Your task to perform on an android device: Search for dell xps on bestbuy.com, select the first entry, and add it to the cart. Image 0: 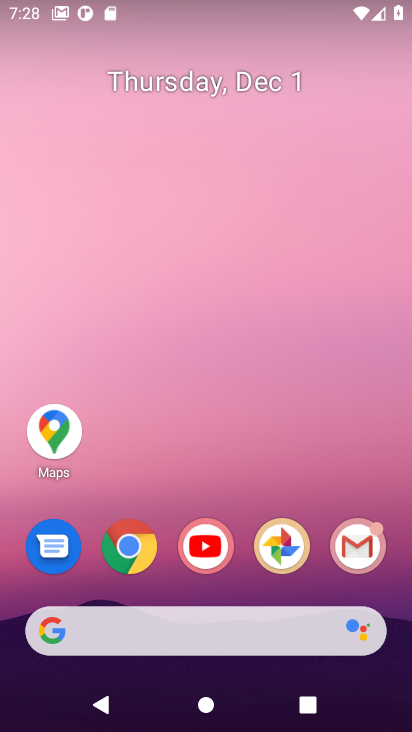
Step 0: click (124, 557)
Your task to perform on an android device: Search for dell xps on bestbuy.com, select the first entry, and add it to the cart. Image 1: 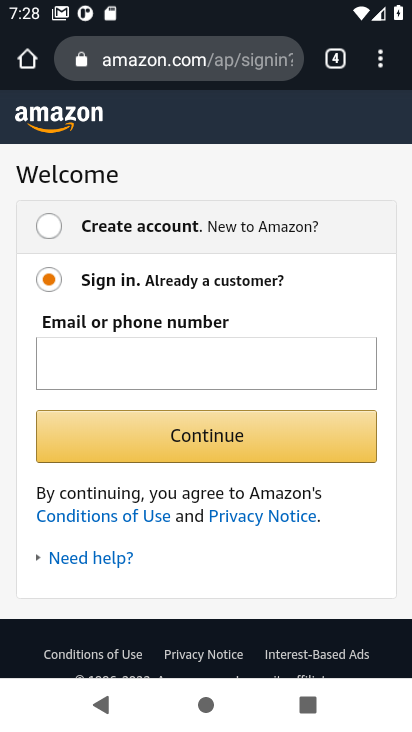
Step 1: click (195, 59)
Your task to perform on an android device: Search for dell xps on bestbuy.com, select the first entry, and add it to the cart. Image 2: 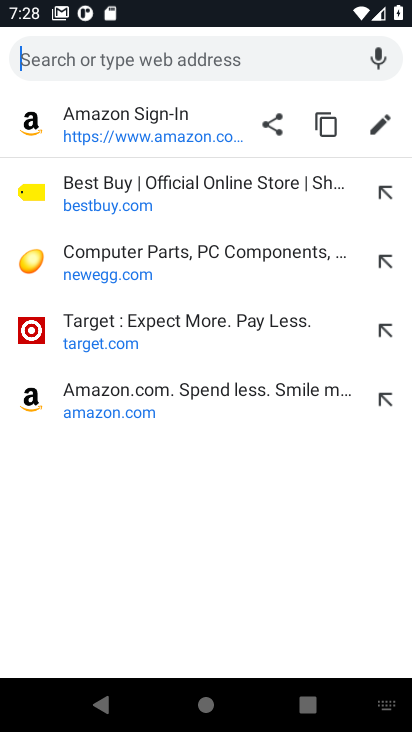
Step 2: click (104, 189)
Your task to perform on an android device: Search for dell xps on bestbuy.com, select the first entry, and add it to the cart. Image 3: 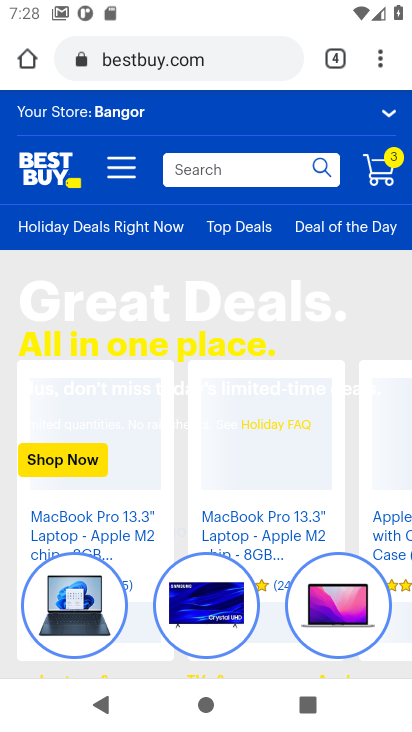
Step 3: click (192, 178)
Your task to perform on an android device: Search for dell xps on bestbuy.com, select the first entry, and add it to the cart. Image 4: 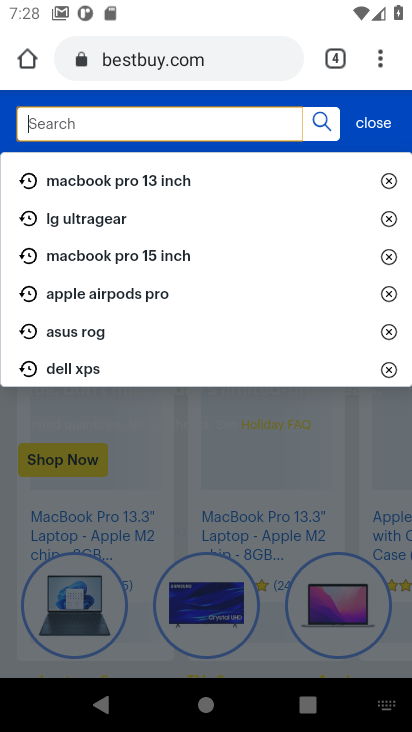
Step 4: type "dell xps"
Your task to perform on an android device: Search for dell xps on bestbuy.com, select the first entry, and add it to the cart. Image 5: 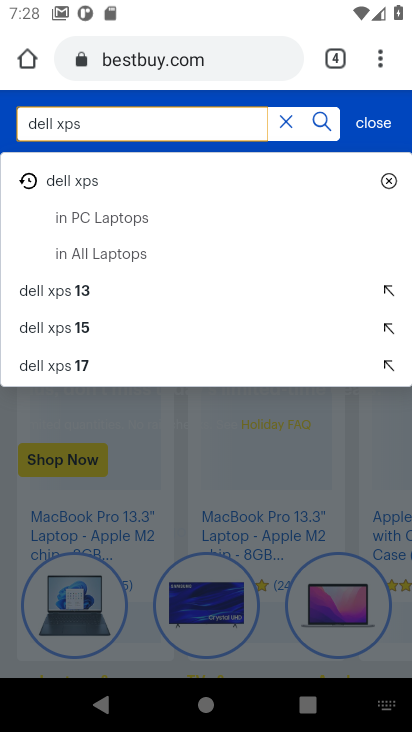
Step 5: click (66, 183)
Your task to perform on an android device: Search for dell xps on bestbuy.com, select the first entry, and add it to the cart. Image 6: 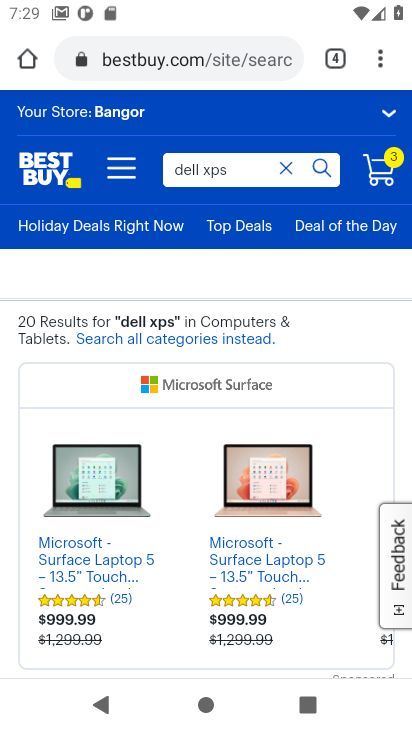
Step 6: drag from (180, 598) to (170, 271)
Your task to perform on an android device: Search for dell xps on bestbuy.com, select the first entry, and add it to the cart. Image 7: 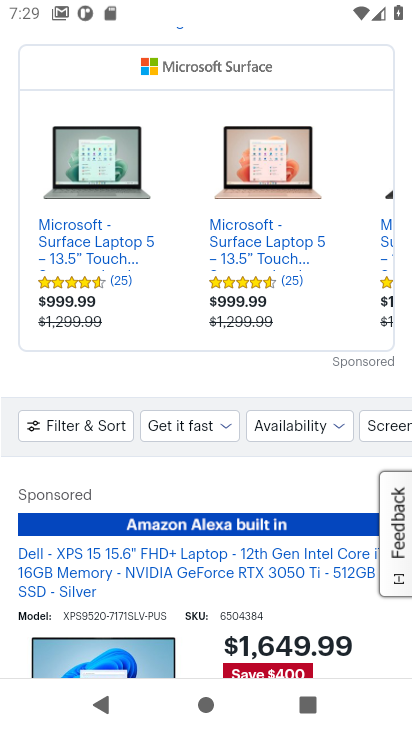
Step 7: drag from (172, 453) to (143, 211)
Your task to perform on an android device: Search for dell xps on bestbuy.com, select the first entry, and add it to the cart. Image 8: 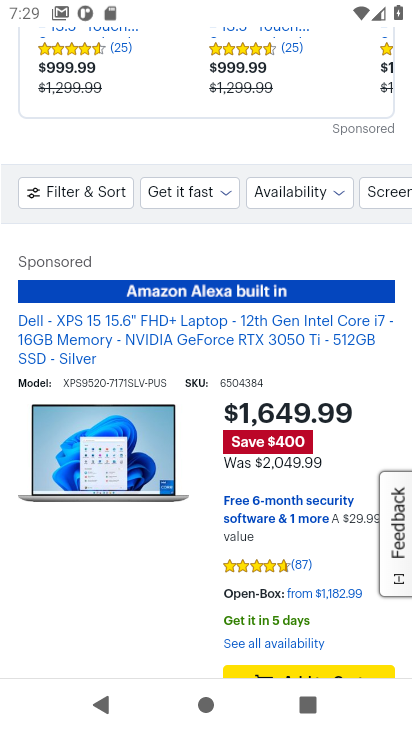
Step 8: drag from (238, 572) to (236, 358)
Your task to perform on an android device: Search for dell xps on bestbuy.com, select the first entry, and add it to the cart. Image 9: 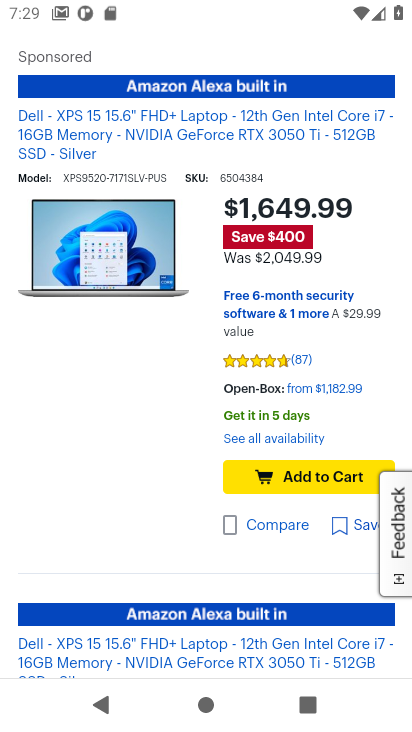
Step 9: click (273, 474)
Your task to perform on an android device: Search for dell xps on bestbuy.com, select the first entry, and add it to the cart. Image 10: 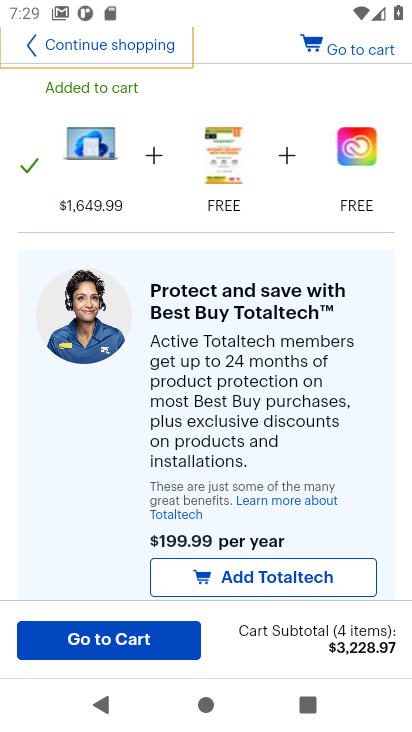
Step 10: click (345, 72)
Your task to perform on an android device: Search for dell xps on bestbuy.com, select the first entry, and add it to the cart. Image 11: 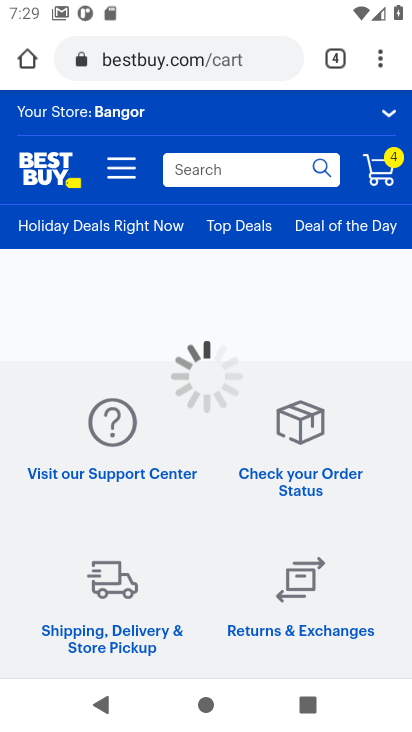
Step 11: task complete